Your task to perform on an android device: turn off javascript in the chrome app Image 0: 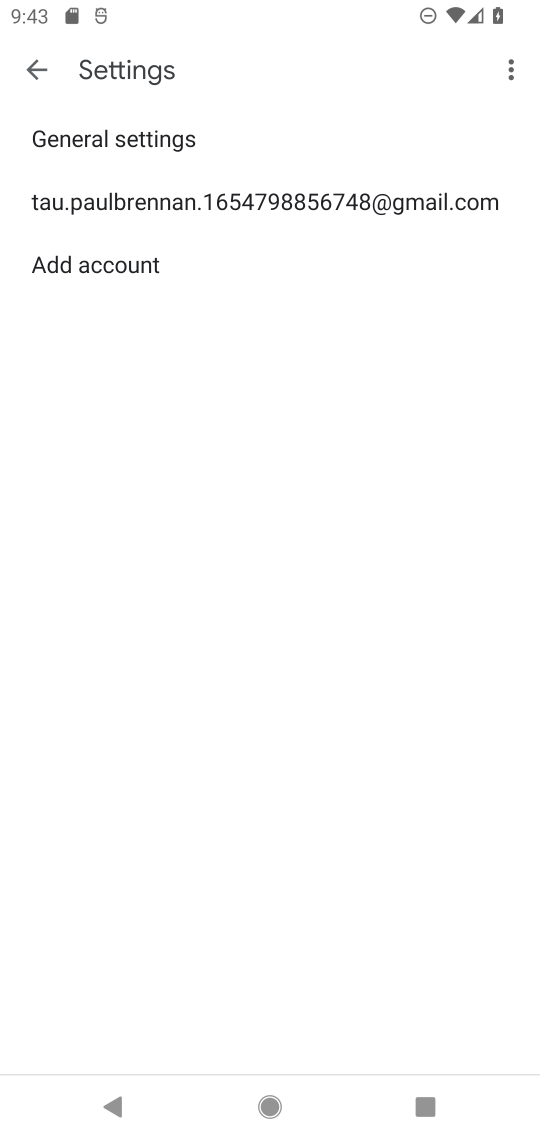
Step 0: press home button
Your task to perform on an android device: turn off javascript in the chrome app Image 1: 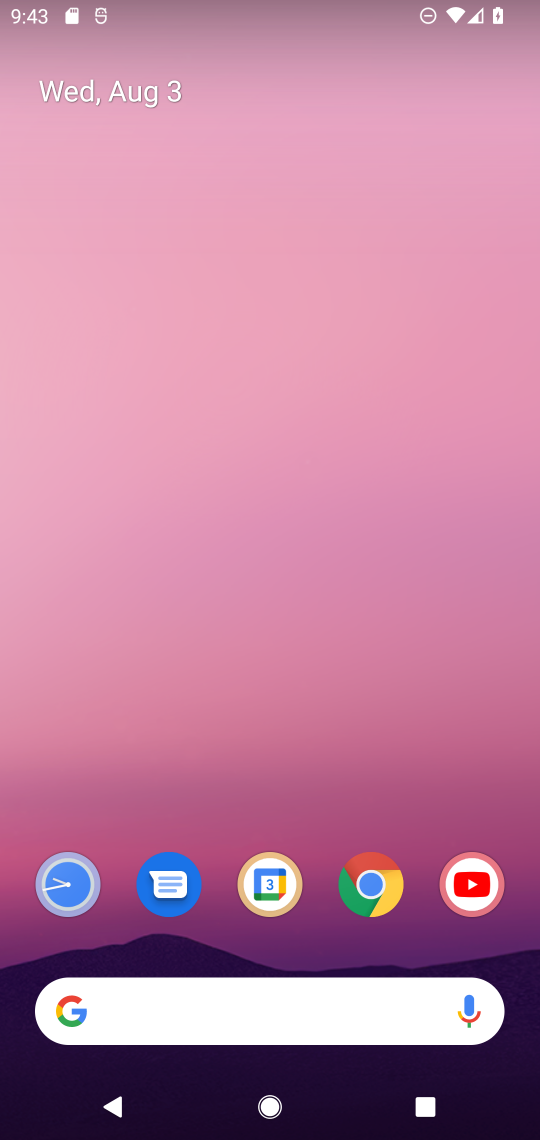
Step 1: click (376, 892)
Your task to perform on an android device: turn off javascript in the chrome app Image 2: 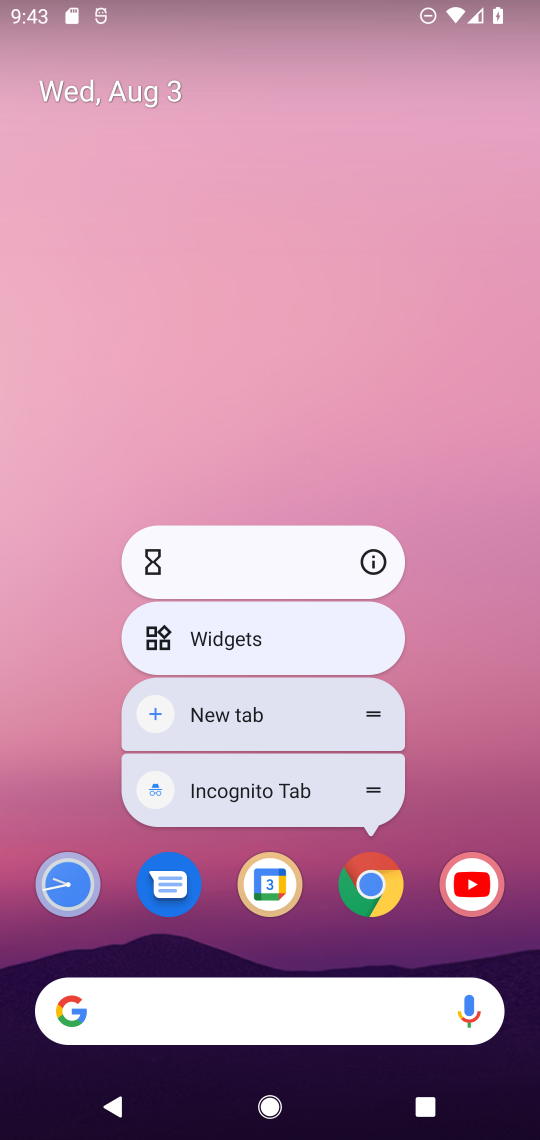
Step 2: click (381, 881)
Your task to perform on an android device: turn off javascript in the chrome app Image 3: 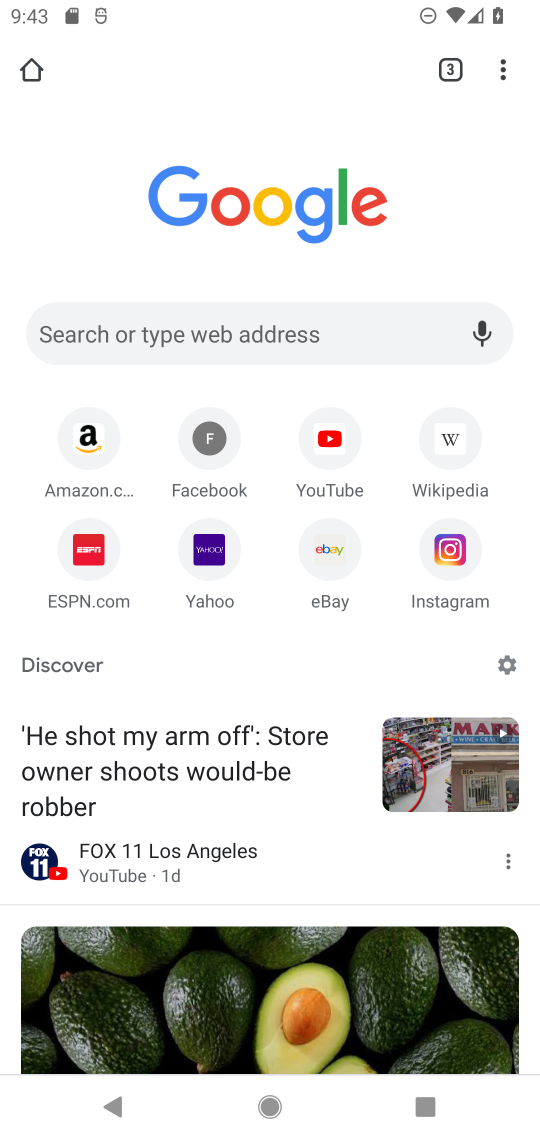
Step 3: click (500, 70)
Your task to perform on an android device: turn off javascript in the chrome app Image 4: 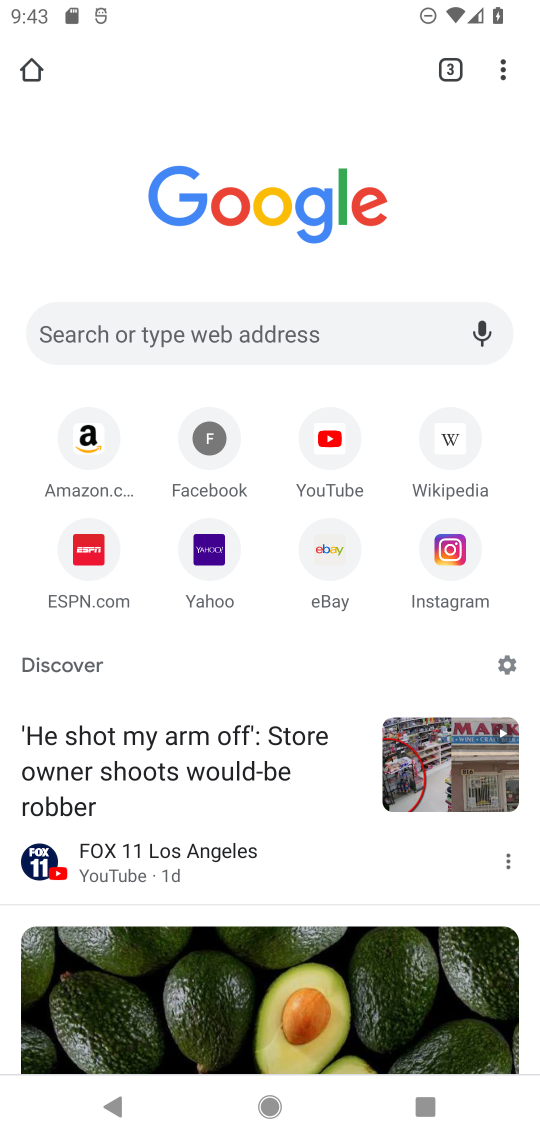
Step 4: click (505, 75)
Your task to perform on an android device: turn off javascript in the chrome app Image 5: 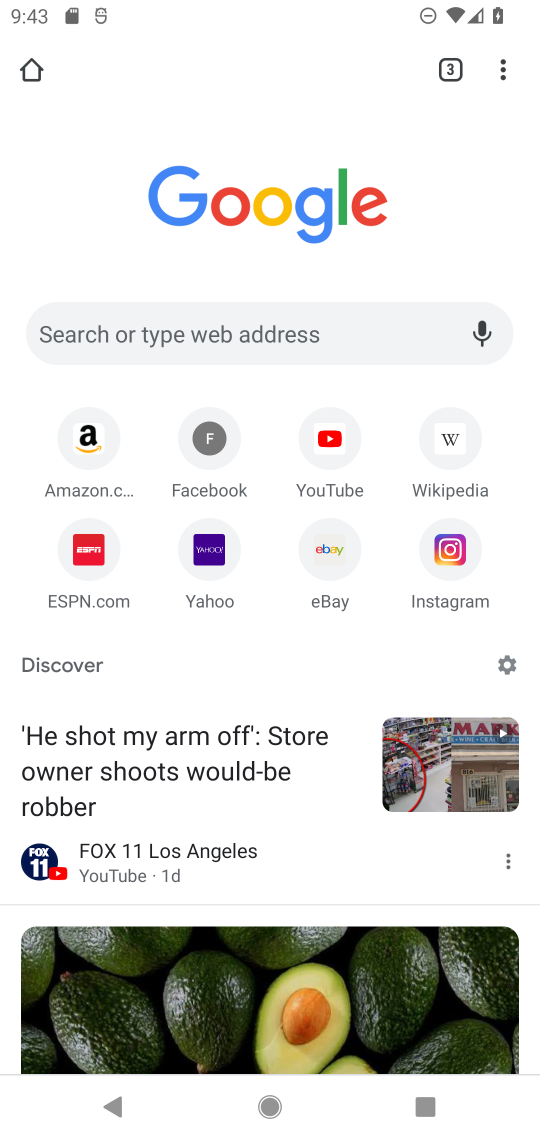
Step 5: click (513, 72)
Your task to perform on an android device: turn off javascript in the chrome app Image 6: 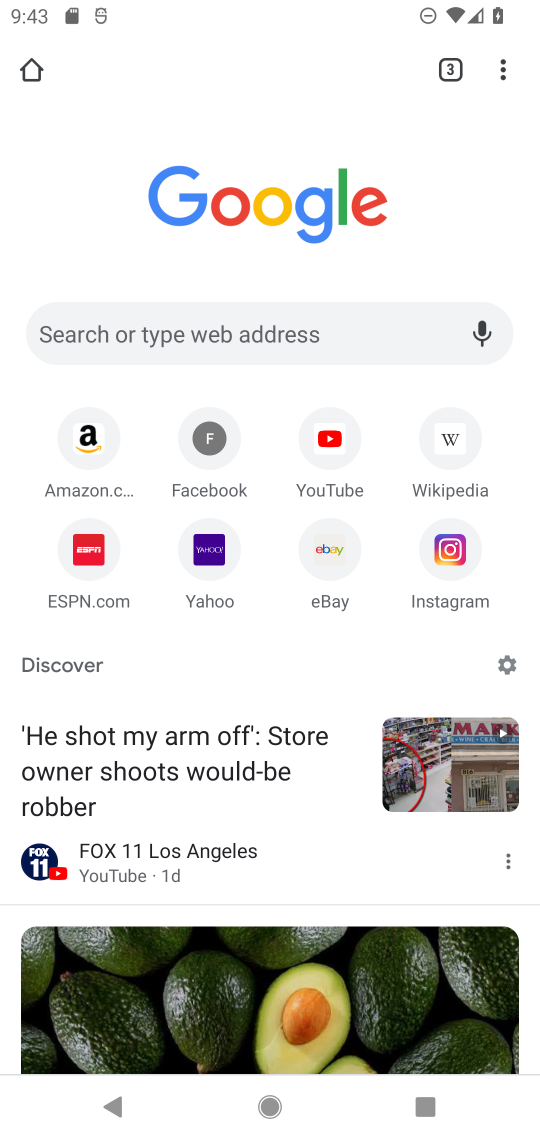
Step 6: task complete